Your task to perform on an android device: Find coffee shops on Maps Image 0: 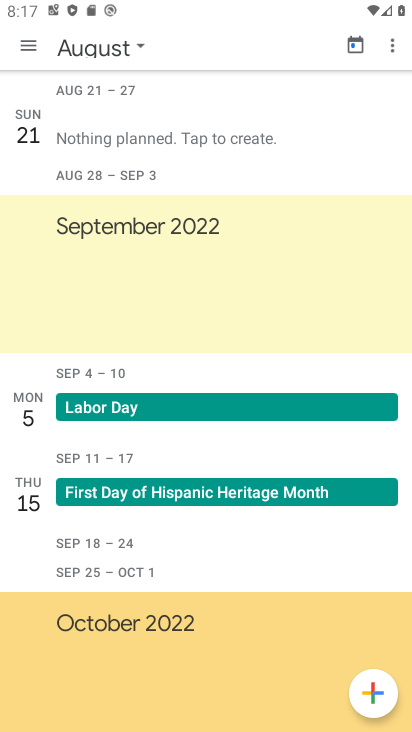
Step 0: press home button
Your task to perform on an android device: Find coffee shops on Maps Image 1: 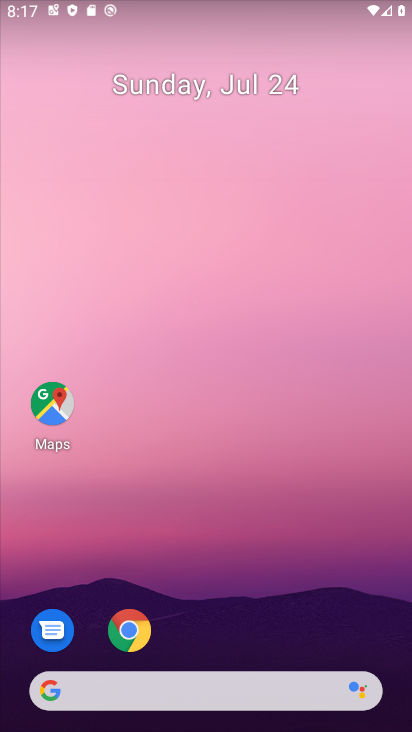
Step 1: click (56, 409)
Your task to perform on an android device: Find coffee shops on Maps Image 2: 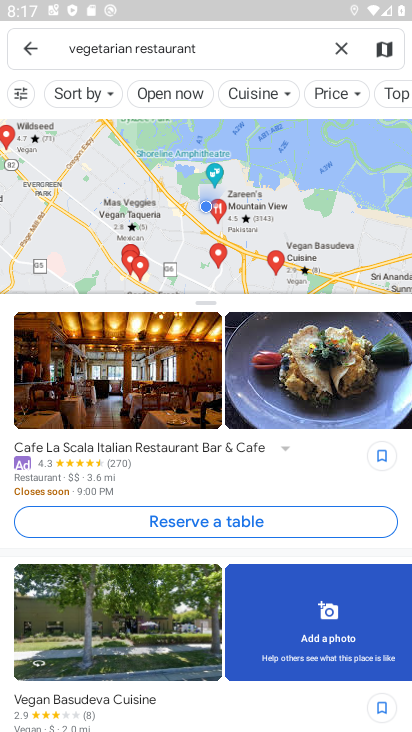
Step 2: click (340, 44)
Your task to perform on an android device: Find coffee shops on Maps Image 3: 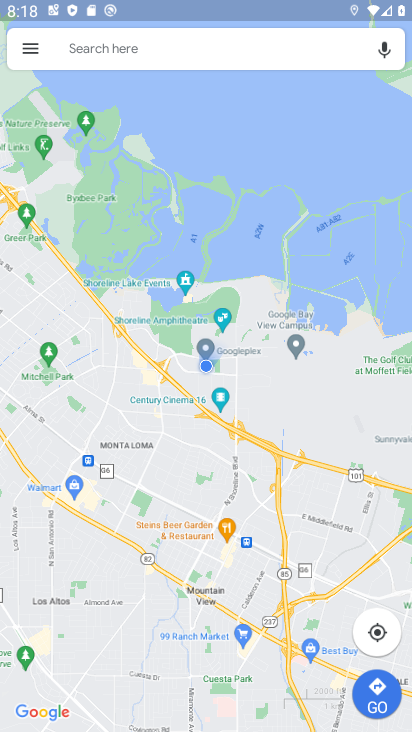
Step 3: click (109, 56)
Your task to perform on an android device: Find coffee shops on Maps Image 4: 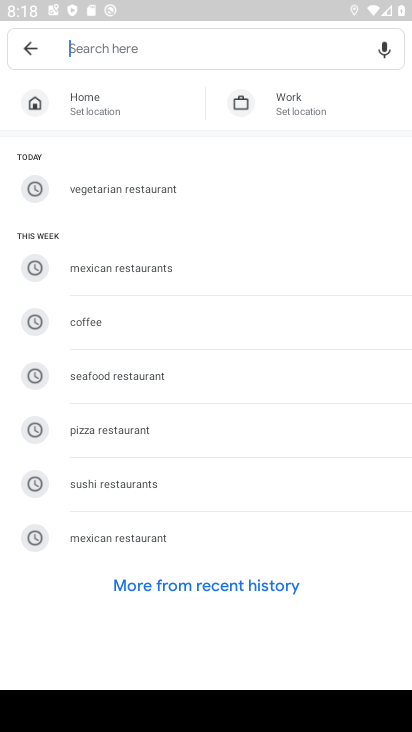
Step 4: type "coffee shops"
Your task to perform on an android device: Find coffee shops on Maps Image 5: 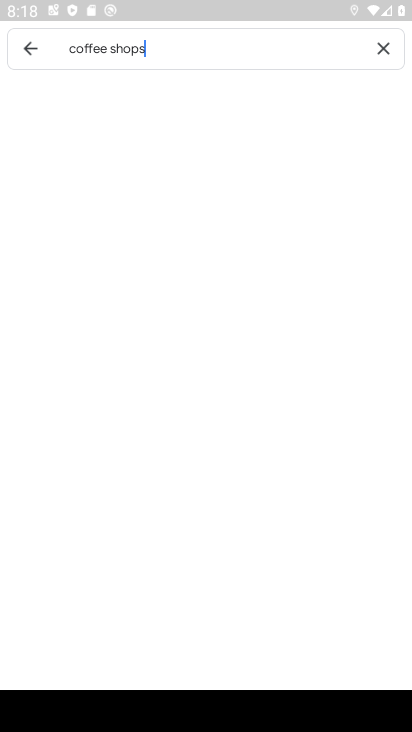
Step 5: type ""
Your task to perform on an android device: Find coffee shops on Maps Image 6: 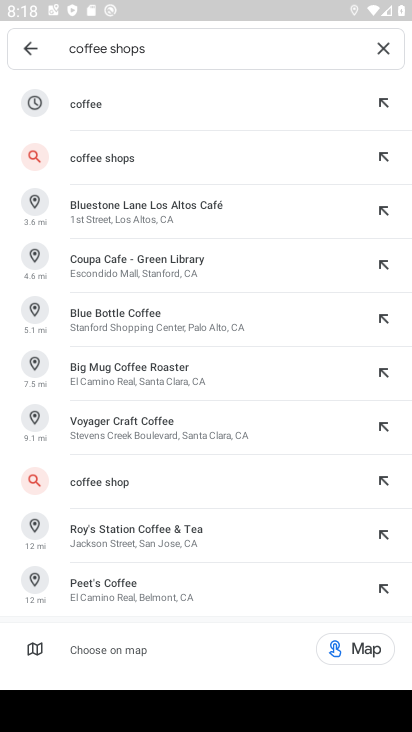
Step 6: click (170, 152)
Your task to perform on an android device: Find coffee shops on Maps Image 7: 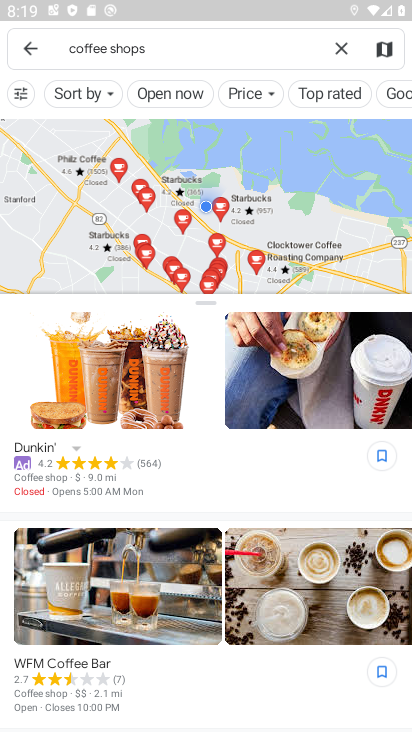
Step 7: task complete